Your task to perform on an android device: open chrome and create a bookmark for the current page Image 0: 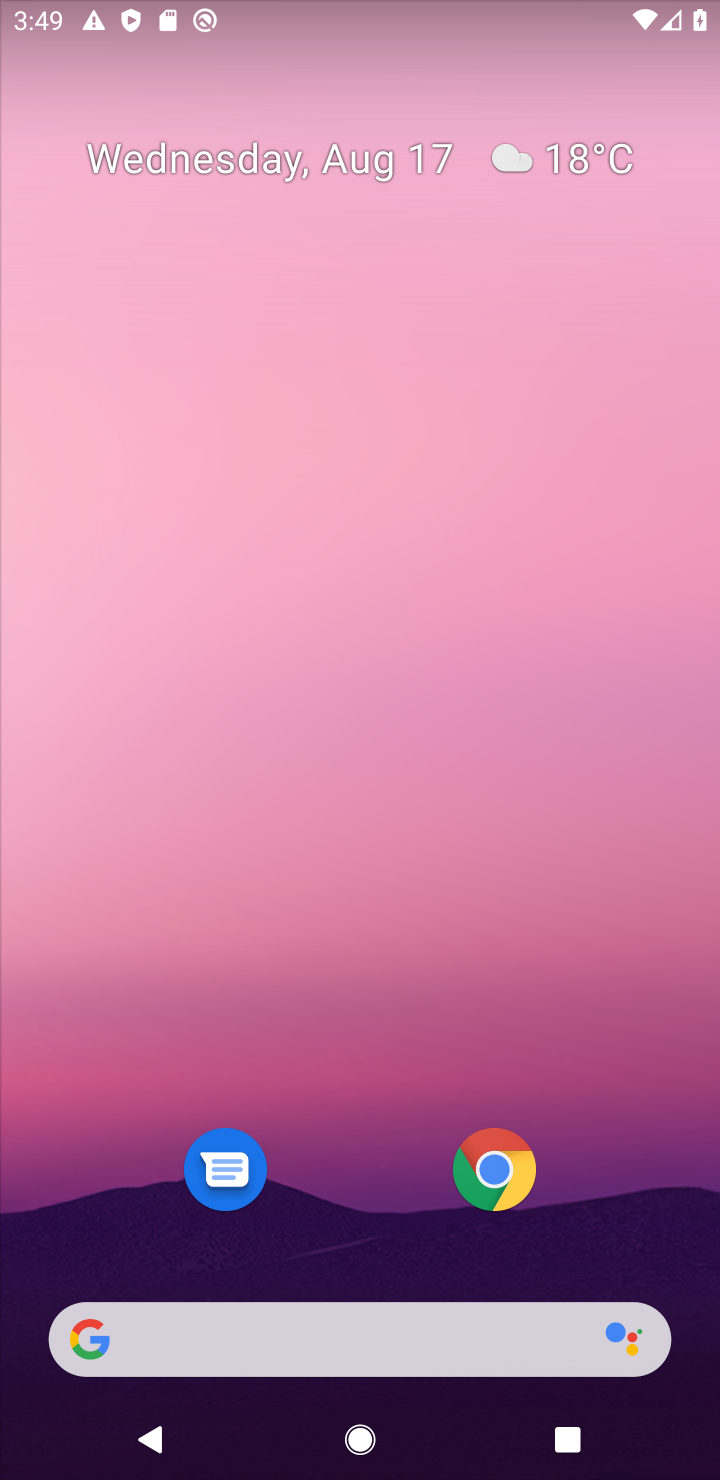
Step 0: drag from (363, 1215) to (398, 228)
Your task to perform on an android device: open chrome and create a bookmark for the current page Image 1: 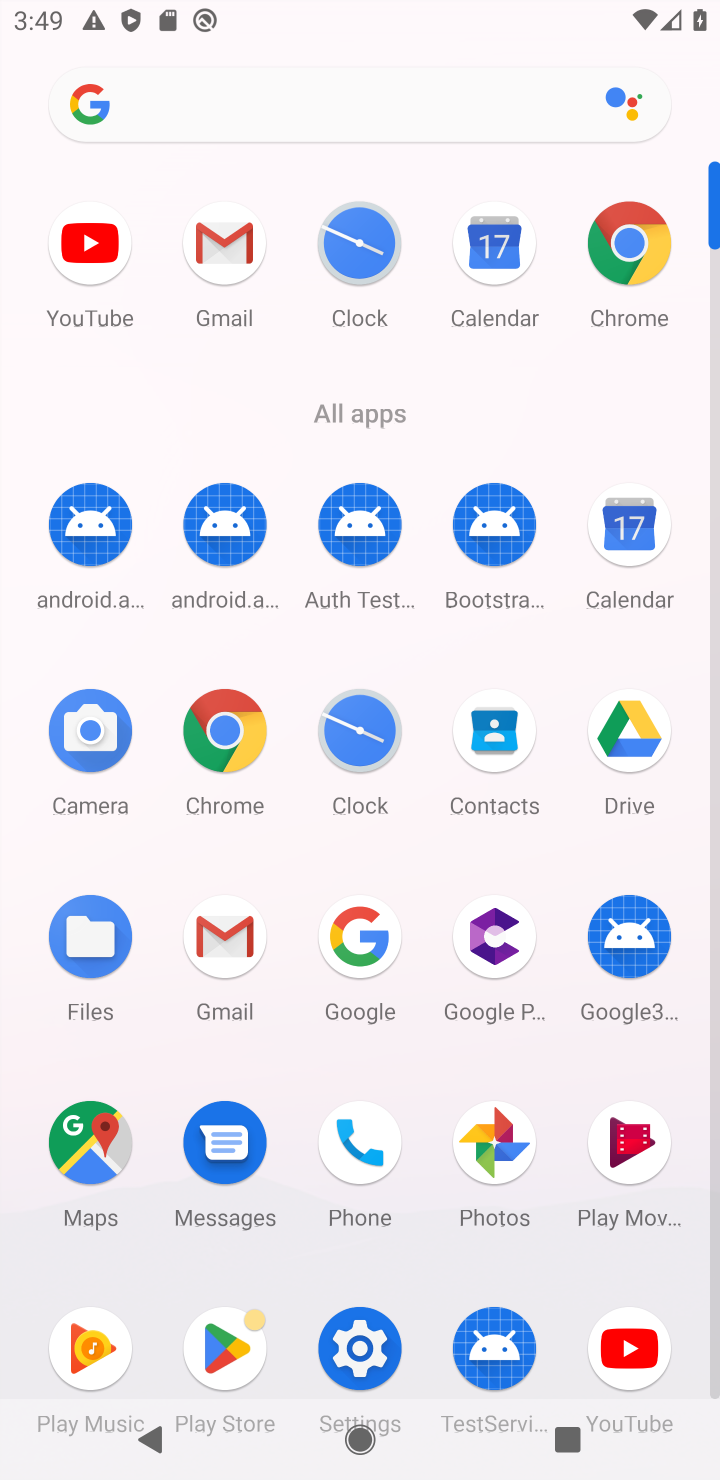
Step 1: click (221, 721)
Your task to perform on an android device: open chrome and create a bookmark for the current page Image 2: 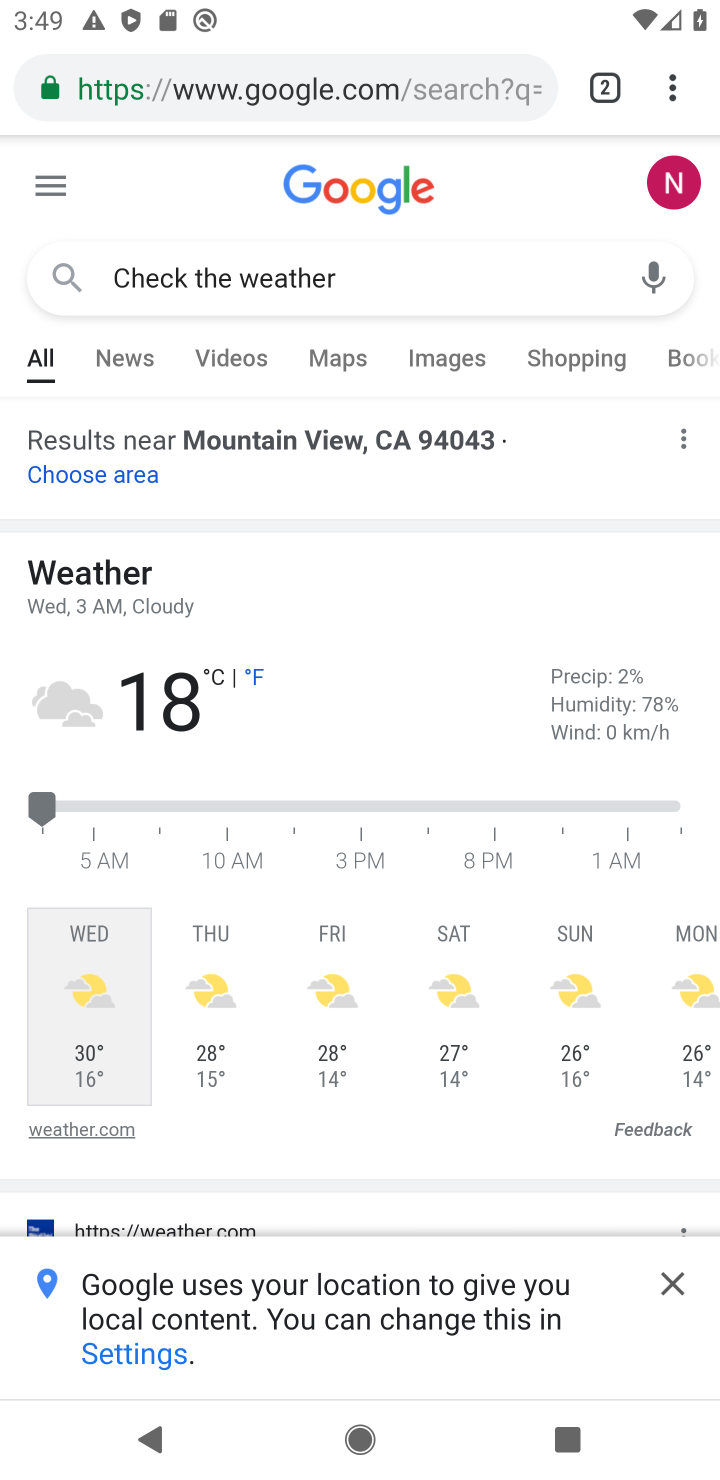
Step 2: task complete